Your task to perform on an android device: Open the phone app and click the voicemail tab. Image 0: 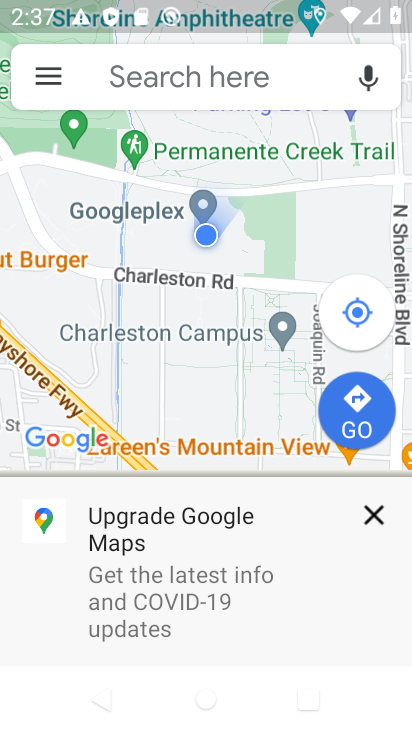
Step 0: press home button
Your task to perform on an android device: Open the phone app and click the voicemail tab. Image 1: 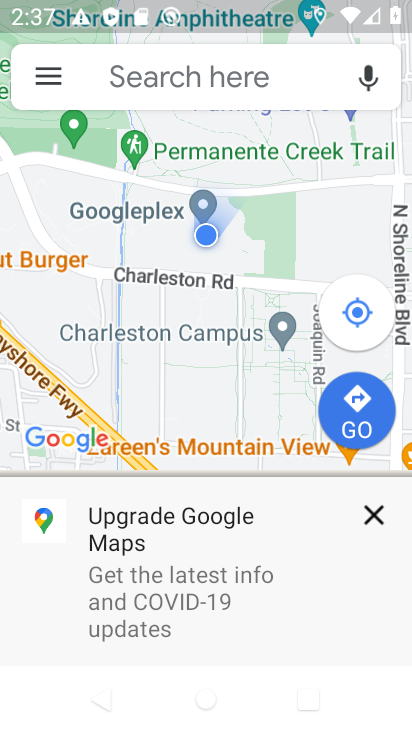
Step 1: press home button
Your task to perform on an android device: Open the phone app and click the voicemail tab. Image 2: 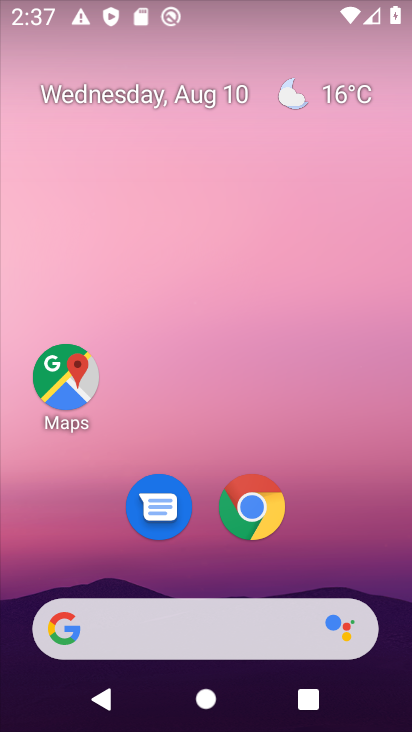
Step 2: drag from (325, 553) to (285, 1)
Your task to perform on an android device: Open the phone app and click the voicemail tab. Image 3: 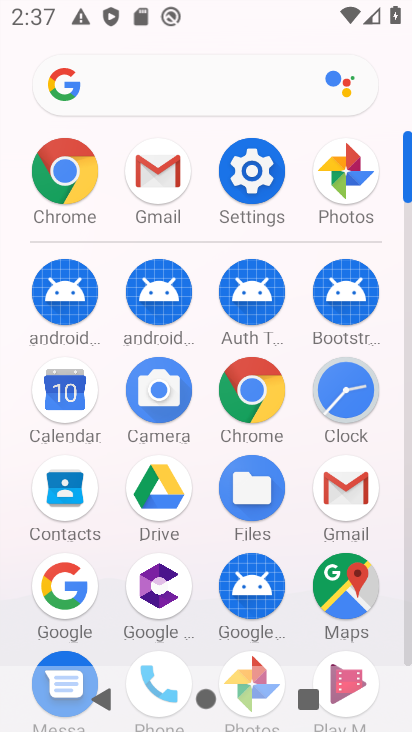
Step 3: drag from (300, 529) to (308, 191)
Your task to perform on an android device: Open the phone app and click the voicemail tab. Image 4: 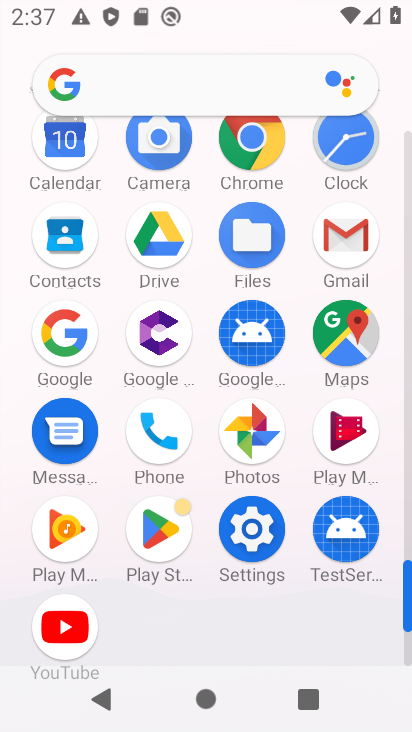
Step 4: click (161, 433)
Your task to perform on an android device: Open the phone app and click the voicemail tab. Image 5: 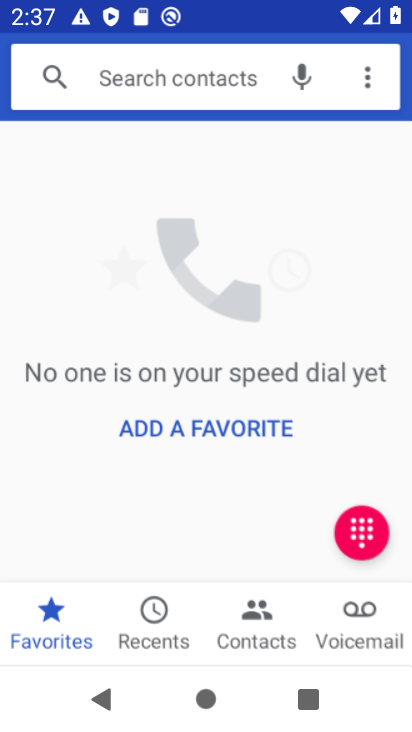
Step 5: click (352, 618)
Your task to perform on an android device: Open the phone app and click the voicemail tab. Image 6: 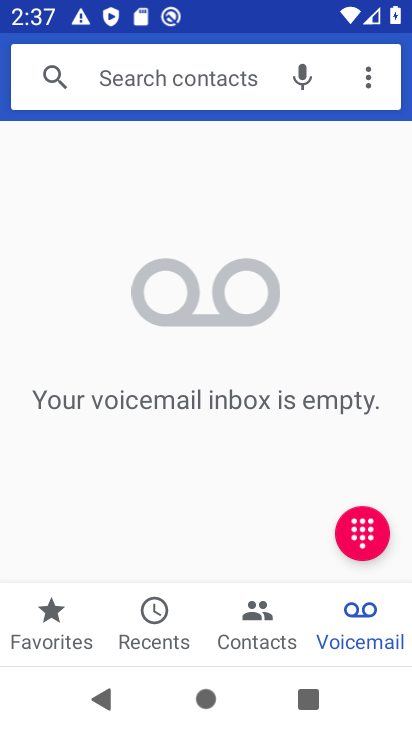
Step 6: task complete